Your task to perform on an android device: What's the weather going to be tomorrow? Image 0: 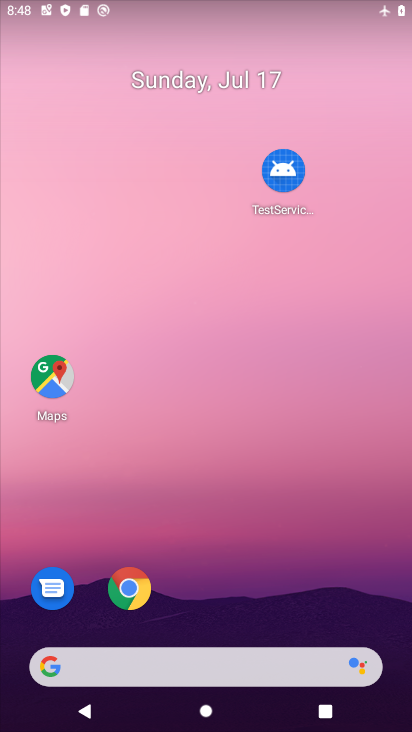
Step 0: drag from (165, 712) to (284, 213)
Your task to perform on an android device: What's the weather going to be tomorrow? Image 1: 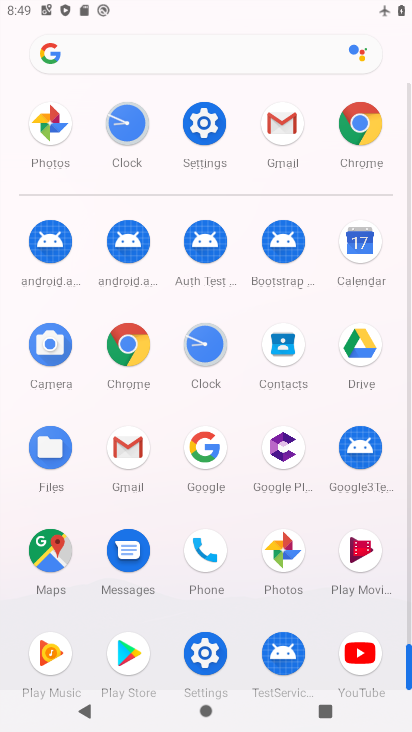
Step 1: click (204, 468)
Your task to perform on an android device: What's the weather going to be tomorrow? Image 2: 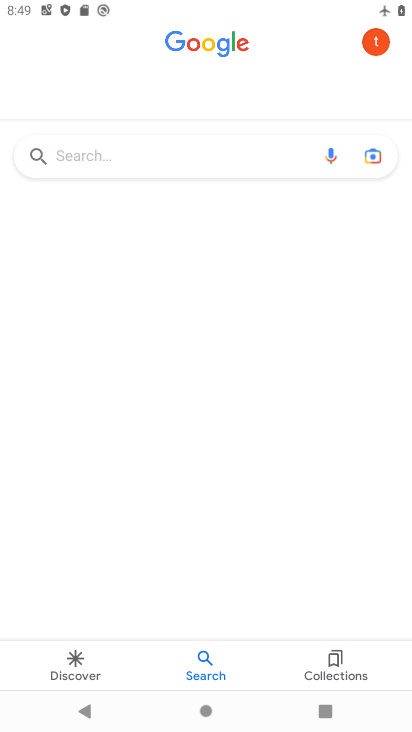
Step 2: click (148, 148)
Your task to perform on an android device: What's the weather going to be tomorrow? Image 3: 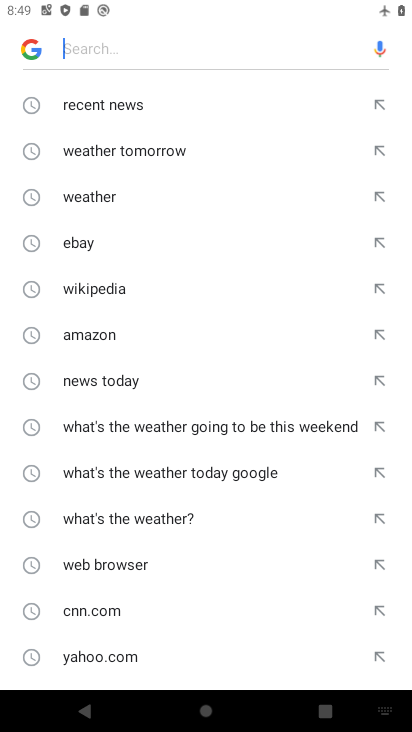
Step 3: click (150, 151)
Your task to perform on an android device: What's the weather going to be tomorrow? Image 4: 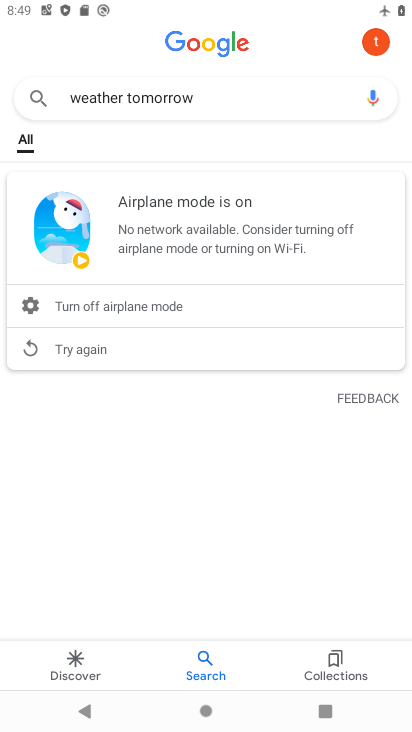
Step 4: task complete